Your task to perform on an android device: Open network settings Image 0: 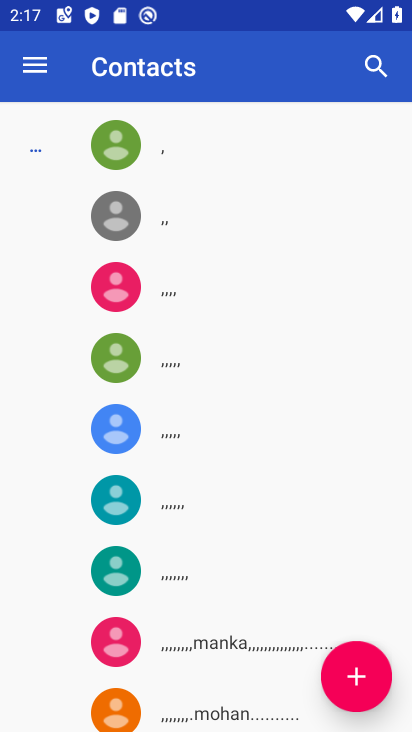
Step 0: press home button
Your task to perform on an android device: Open network settings Image 1: 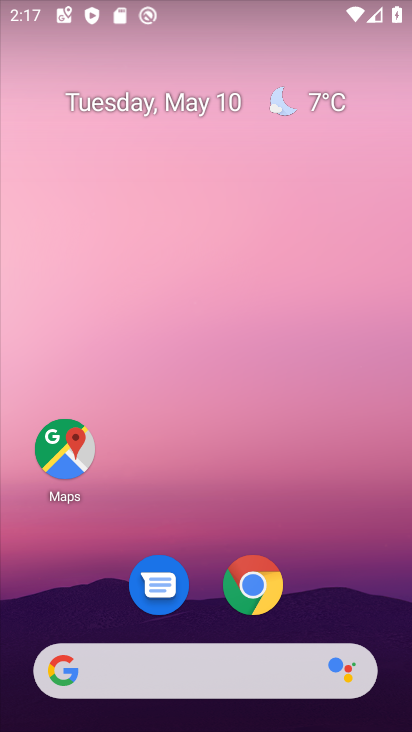
Step 1: drag from (287, 564) to (280, 0)
Your task to perform on an android device: Open network settings Image 2: 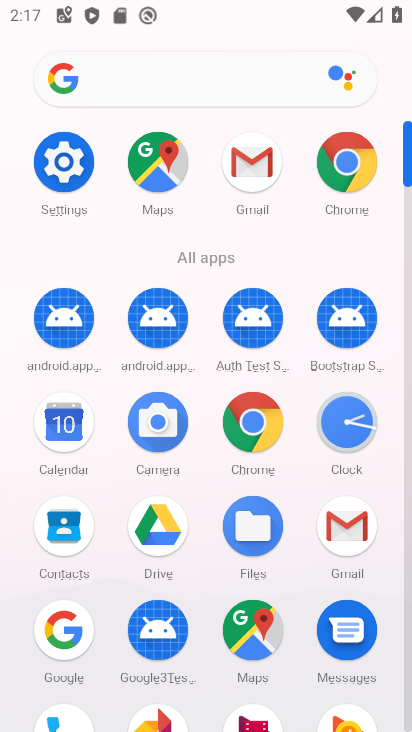
Step 2: click (54, 171)
Your task to perform on an android device: Open network settings Image 3: 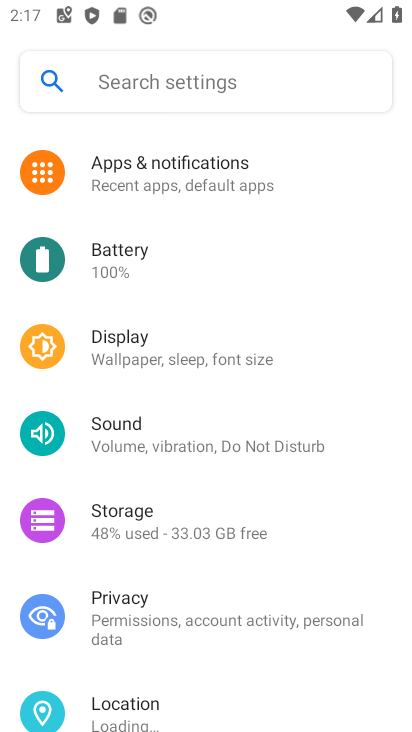
Step 3: drag from (236, 247) to (273, 479)
Your task to perform on an android device: Open network settings Image 4: 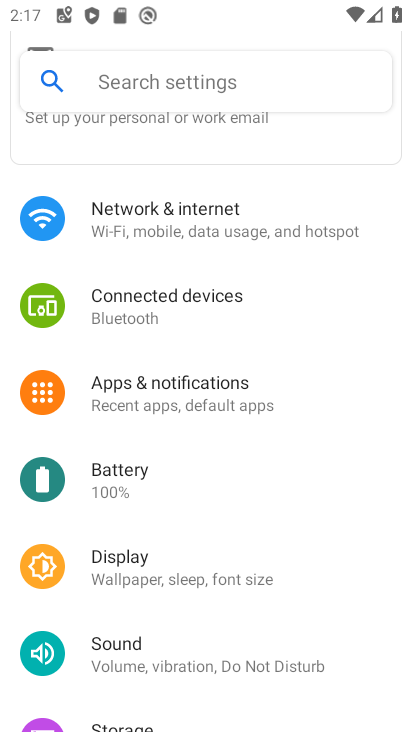
Step 4: click (276, 221)
Your task to perform on an android device: Open network settings Image 5: 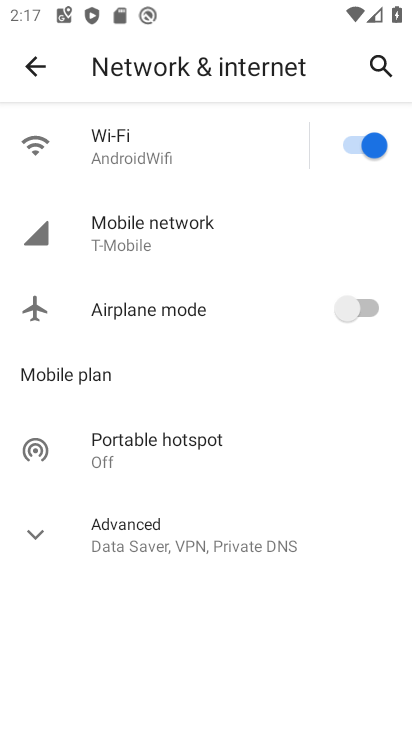
Step 5: task complete